Your task to perform on an android device: Show the shopping cart on amazon. Search for "apple airpods" on amazon, select the first entry, add it to the cart, then select checkout. Image 0: 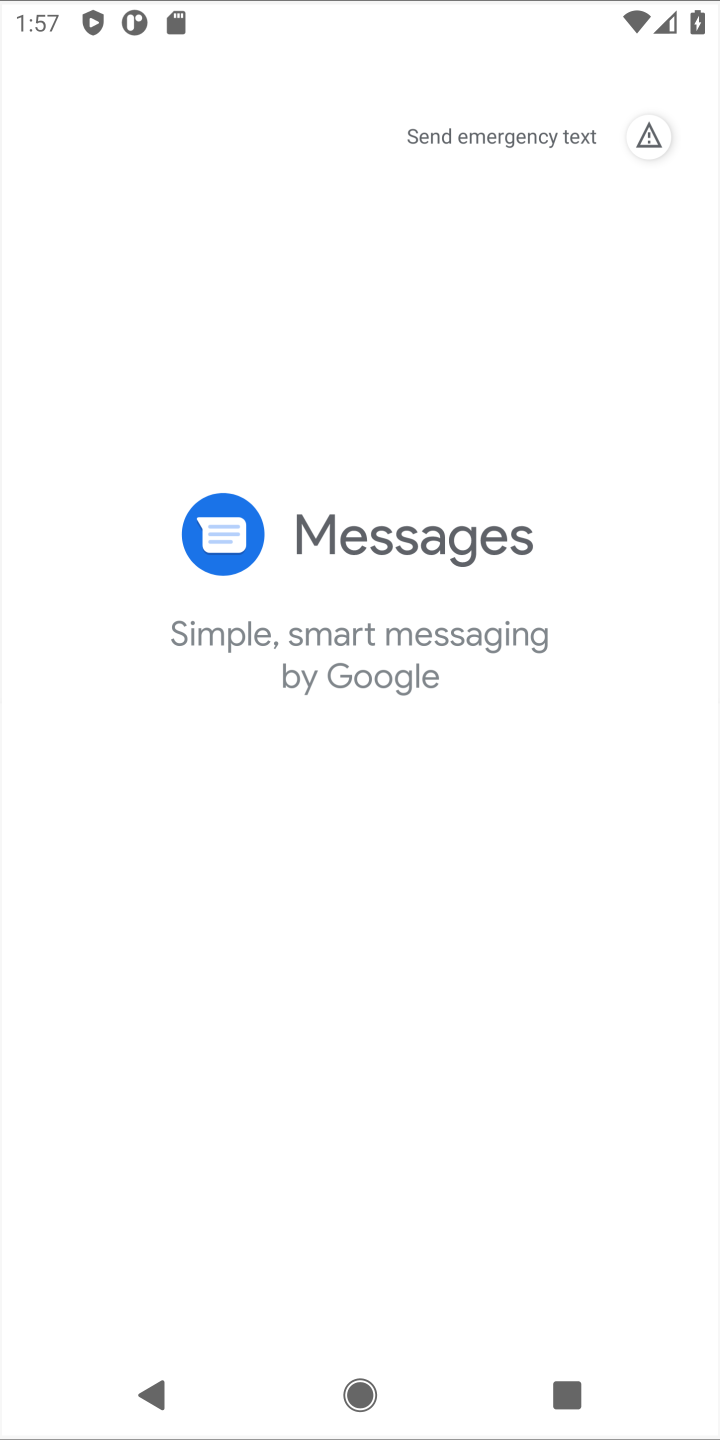
Step 0: press home button
Your task to perform on an android device: Show the shopping cart on amazon. Search for "apple airpods" on amazon, select the first entry, add it to the cart, then select checkout. Image 1: 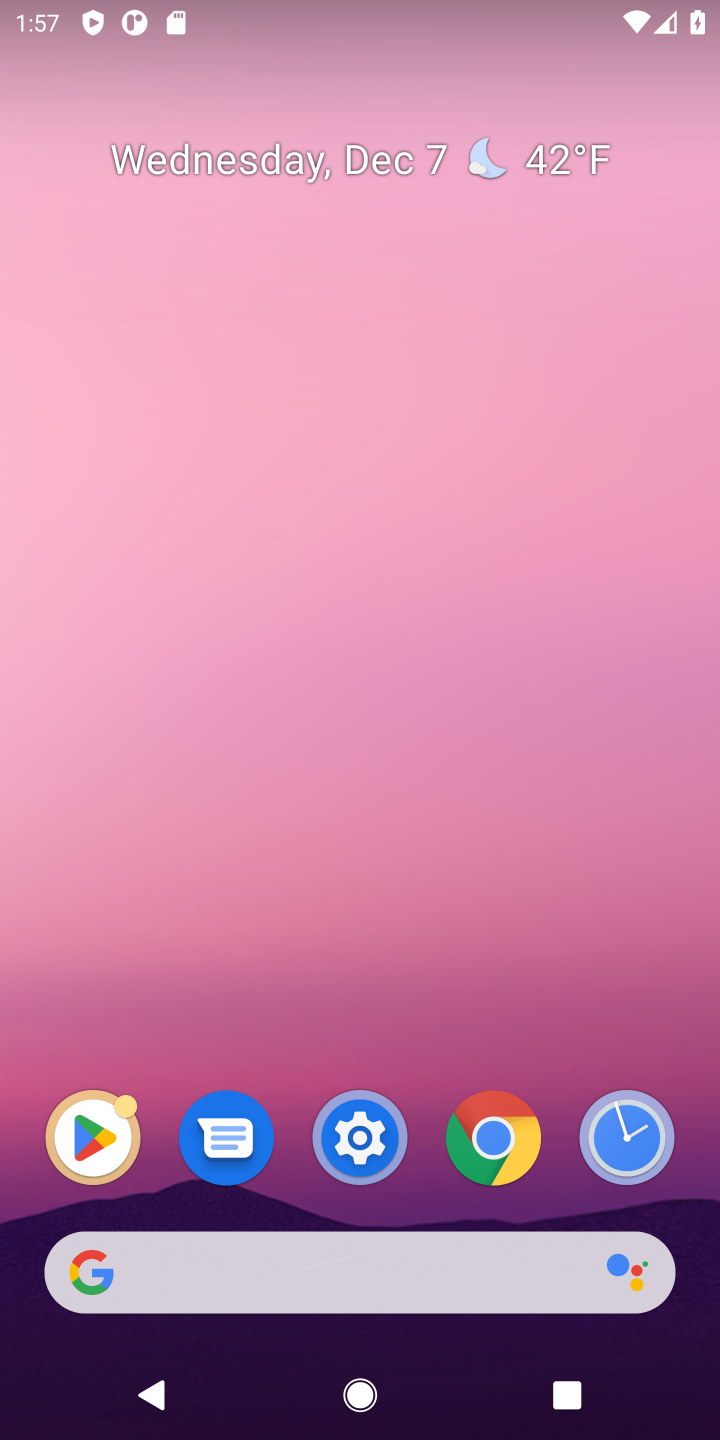
Step 1: click (511, 1248)
Your task to perform on an android device: Show the shopping cart on amazon. Search for "apple airpods" on amazon, select the first entry, add it to the cart, then select checkout. Image 2: 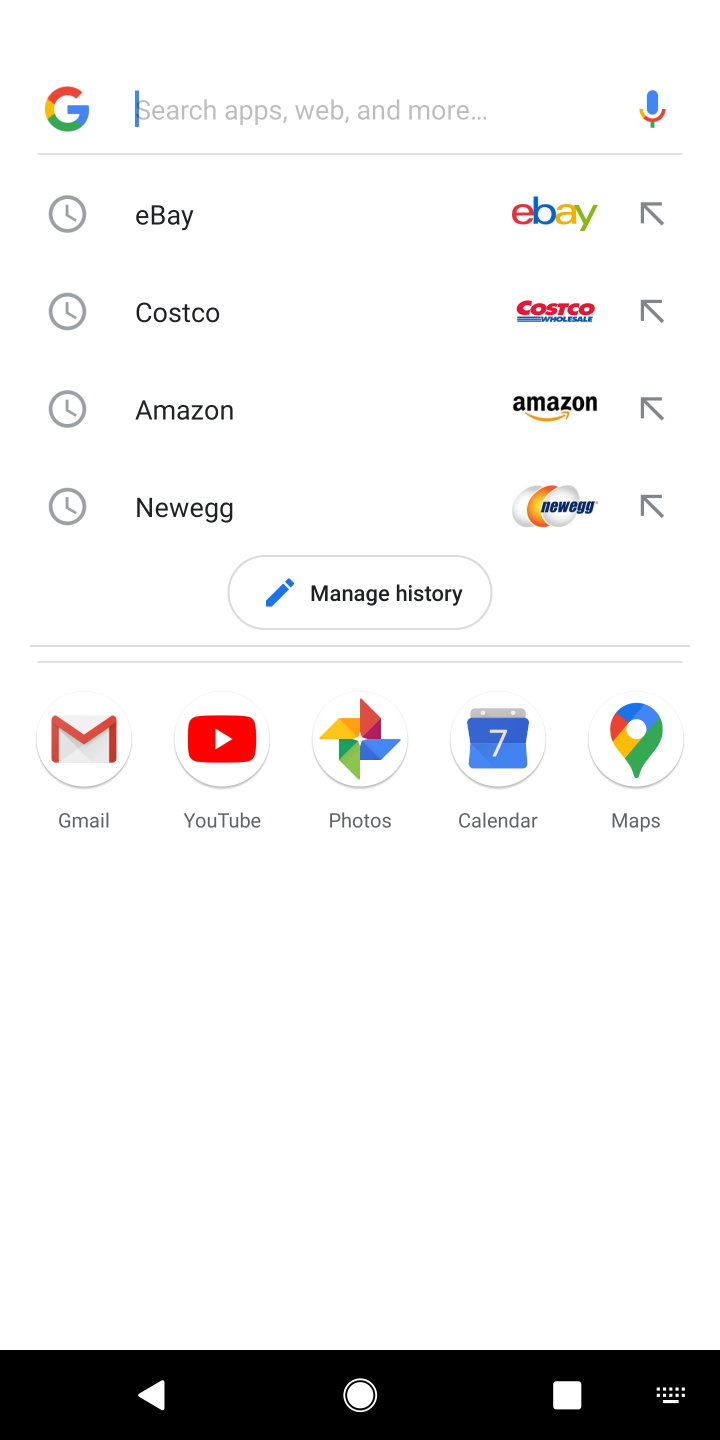
Step 2: click (215, 423)
Your task to perform on an android device: Show the shopping cart on amazon. Search for "apple airpods" on amazon, select the first entry, add it to the cart, then select checkout. Image 3: 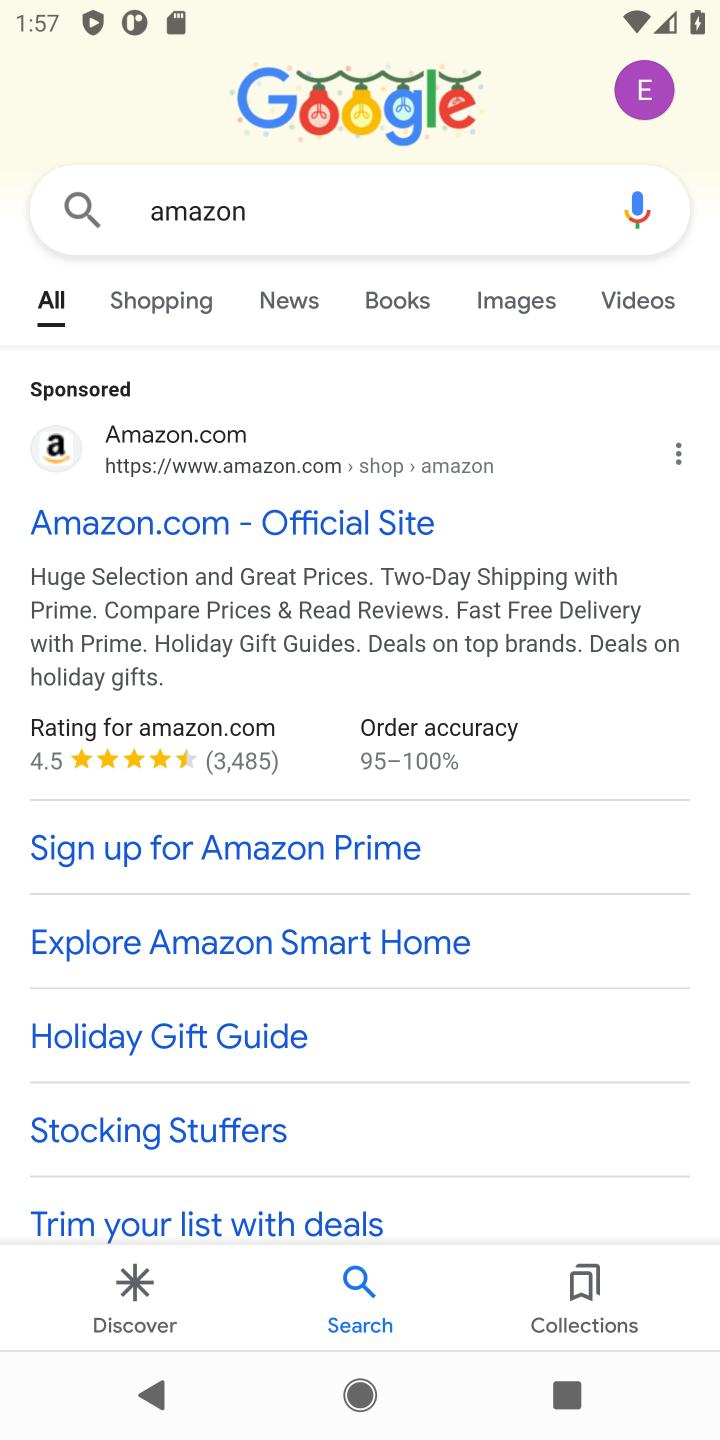
Step 3: click (256, 509)
Your task to perform on an android device: Show the shopping cart on amazon. Search for "apple airpods" on amazon, select the first entry, add it to the cart, then select checkout. Image 4: 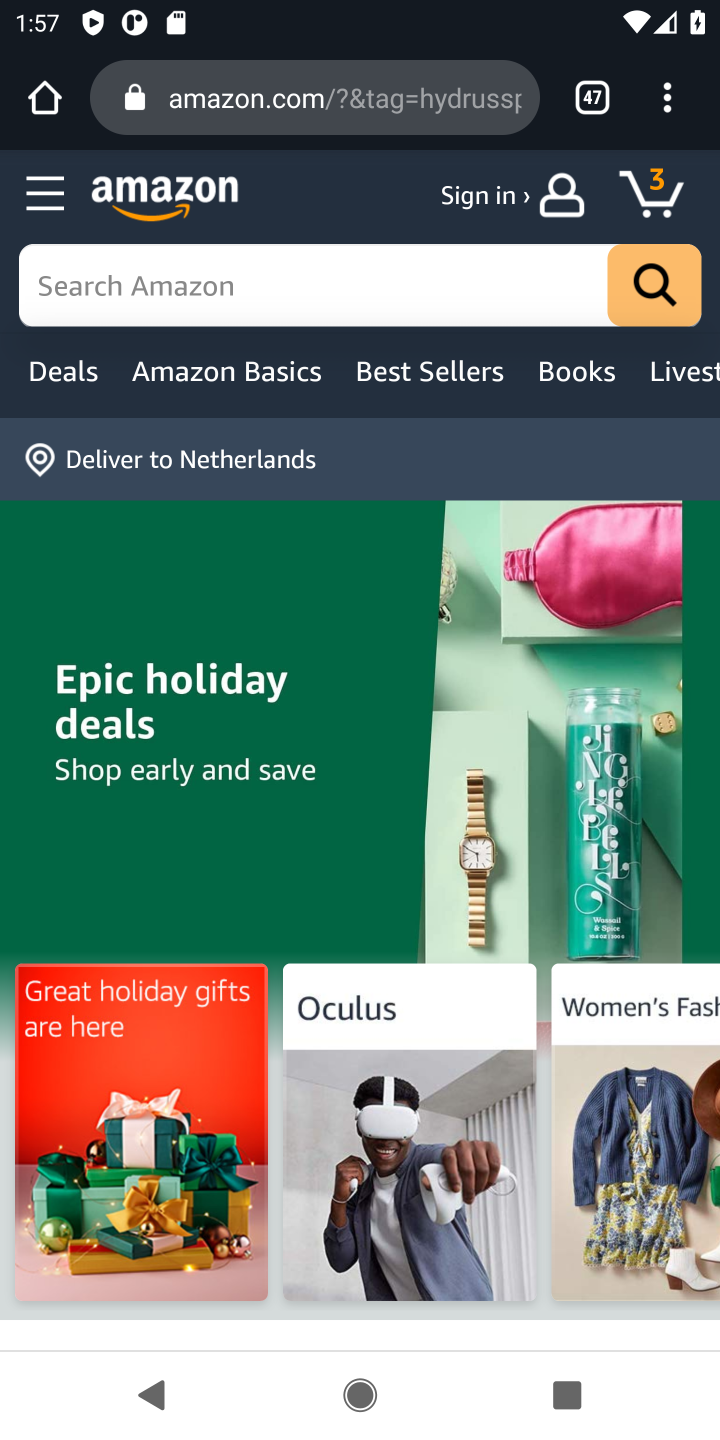
Step 4: click (256, 299)
Your task to perform on an android device: Show the shopping cart on amazon. Search for "apple airpods" on amazon, select the first entry, add it to the cart, then select checkout. Image 5: 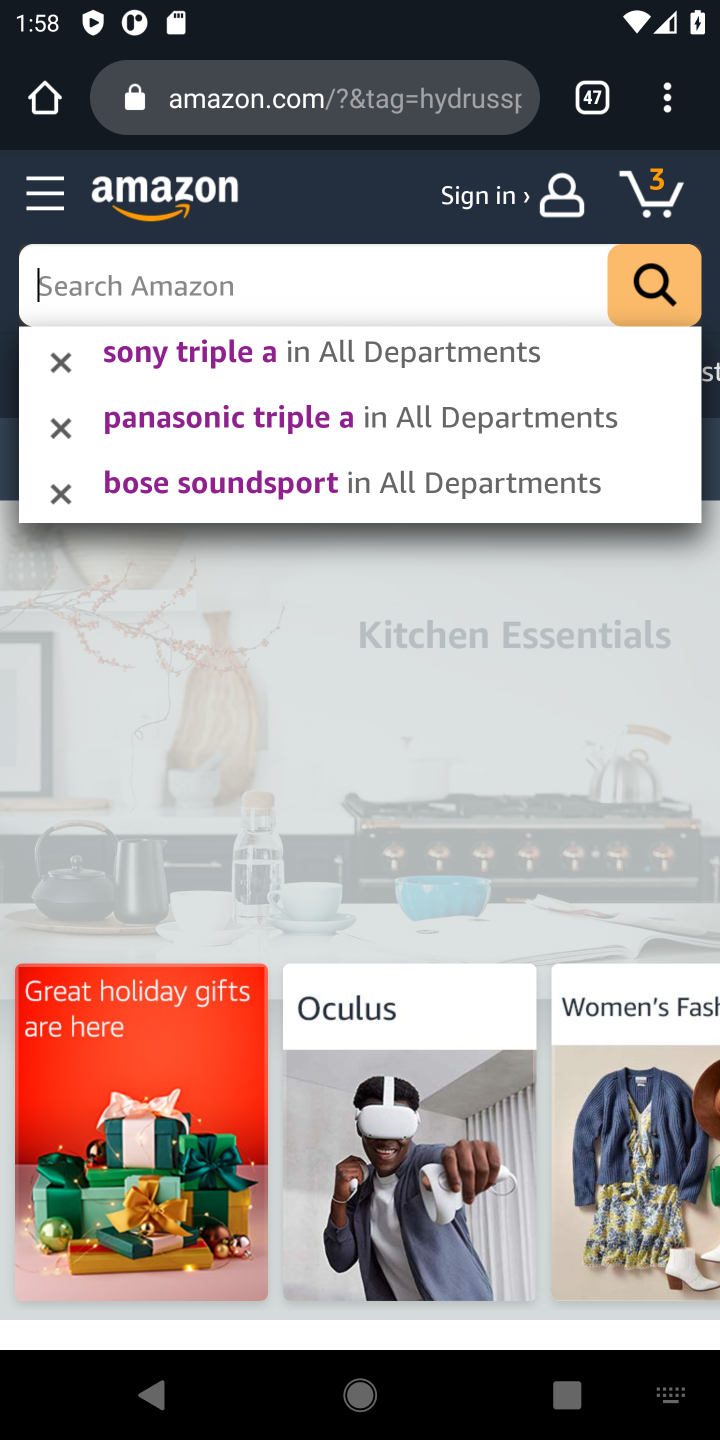
Step 5: type "apple airpod"
Your task to perform on an android device: Show the shopping cart on amazon. Search for "apple airpods" on amazon, select the first entry, add it to the cart, then select checkout. Image 6: 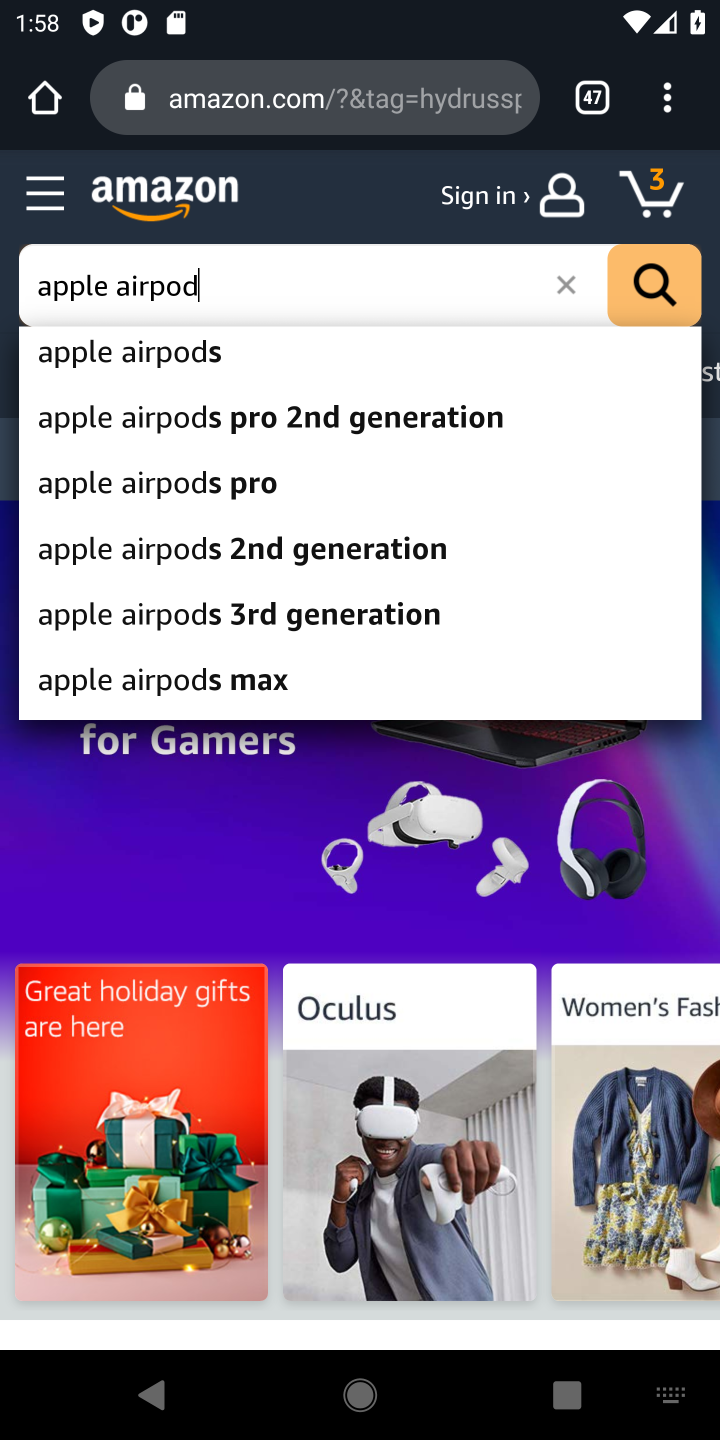
Step 6: click (649, 274)
Your task to perform on an android device: Show the shopping cart on amazon. Search for "apple airpods" on amazon, select the first entry, add it to the cart, then select checkout. Image 7: 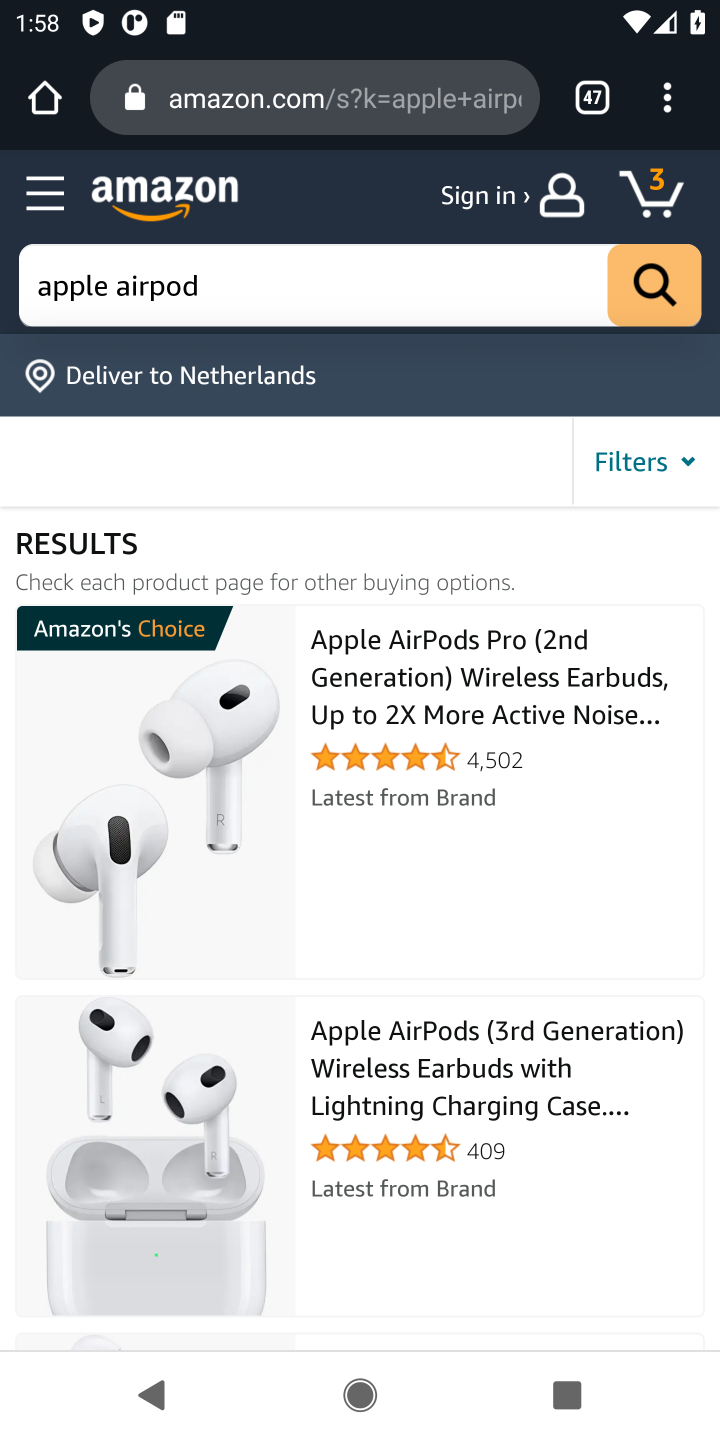
Step 7: click (536, 665)
Your task to perform on an android device: Show the shopping cart on amazon. Search for "apple airpods" on amazon, select the first entry, add it to the cart, then select checkout. Image 8: 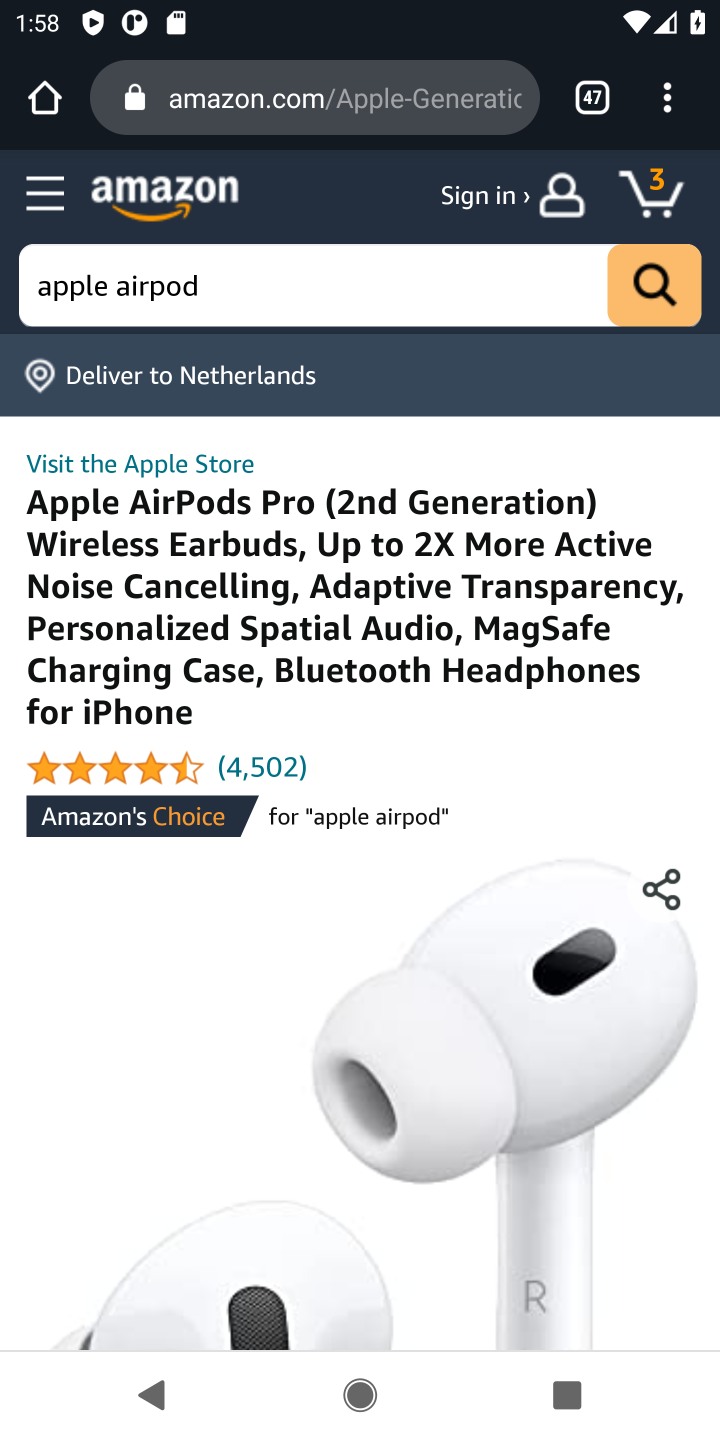
Step 8: drag from (399, 949) to (388, 319)
Your task to perform on an android device: Show the shopping cart on amazon. Search for "apple airpods" on amazon, select the first entry, add it to the cart, then select checkout. Image 9: 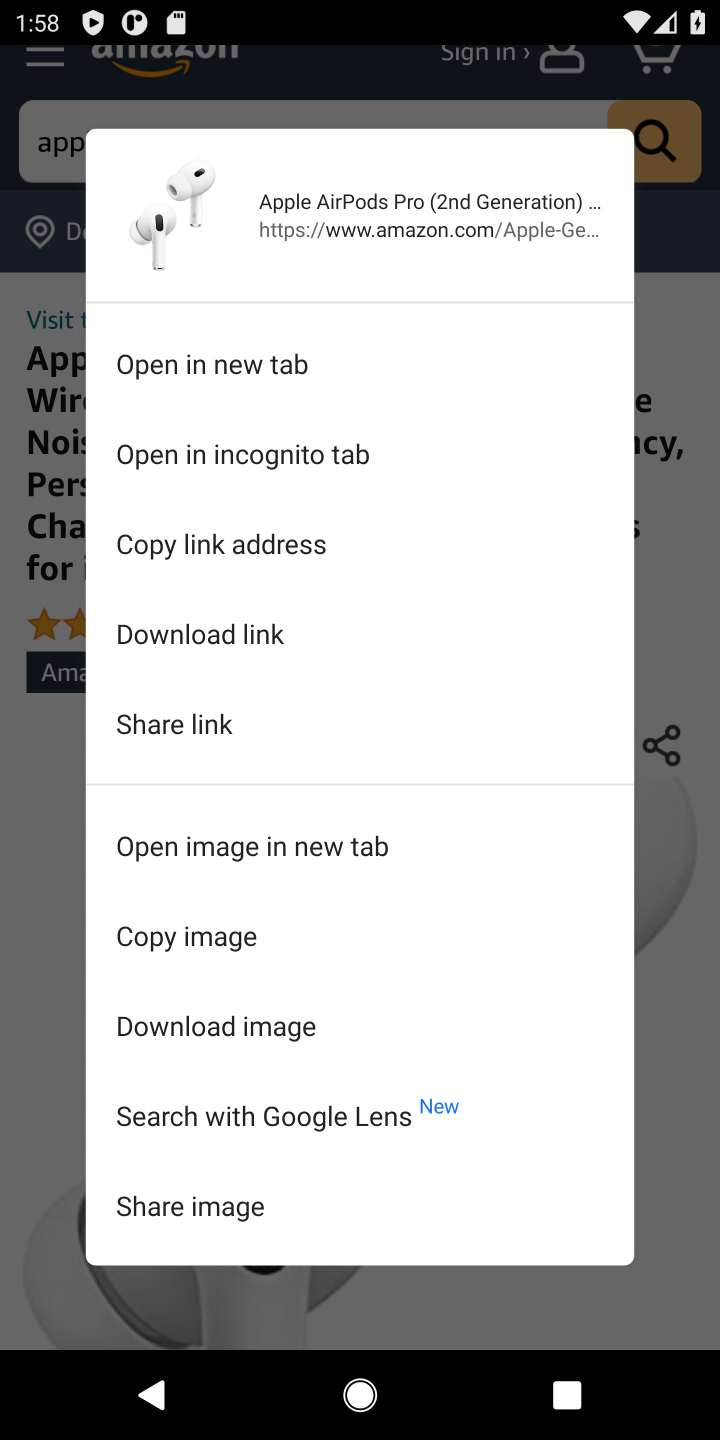
Step 9: click (687, 621)
Your task to perform on an android device: Show the shopping cart on amazon. Search for "apple airpods" on amazon, select the first entry, add it to the cart, then select checkout. Image 10: 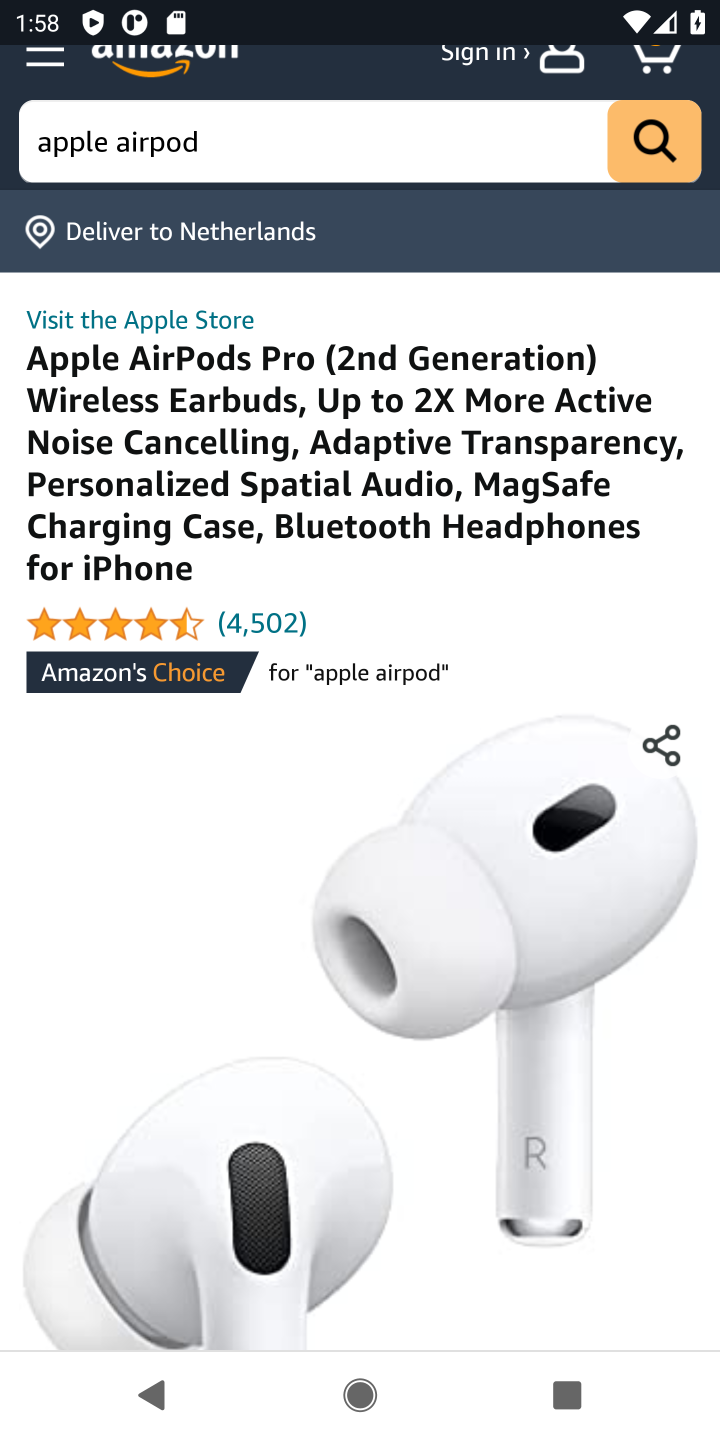
Step 10: drag from (463, 1221) to (476, 465)
Your task to perform on an android device: Show the shopping cart on amazon. Search for "apple airpods" on amazon, select the first entry, add it to the cart, then select checkout. Image 11: 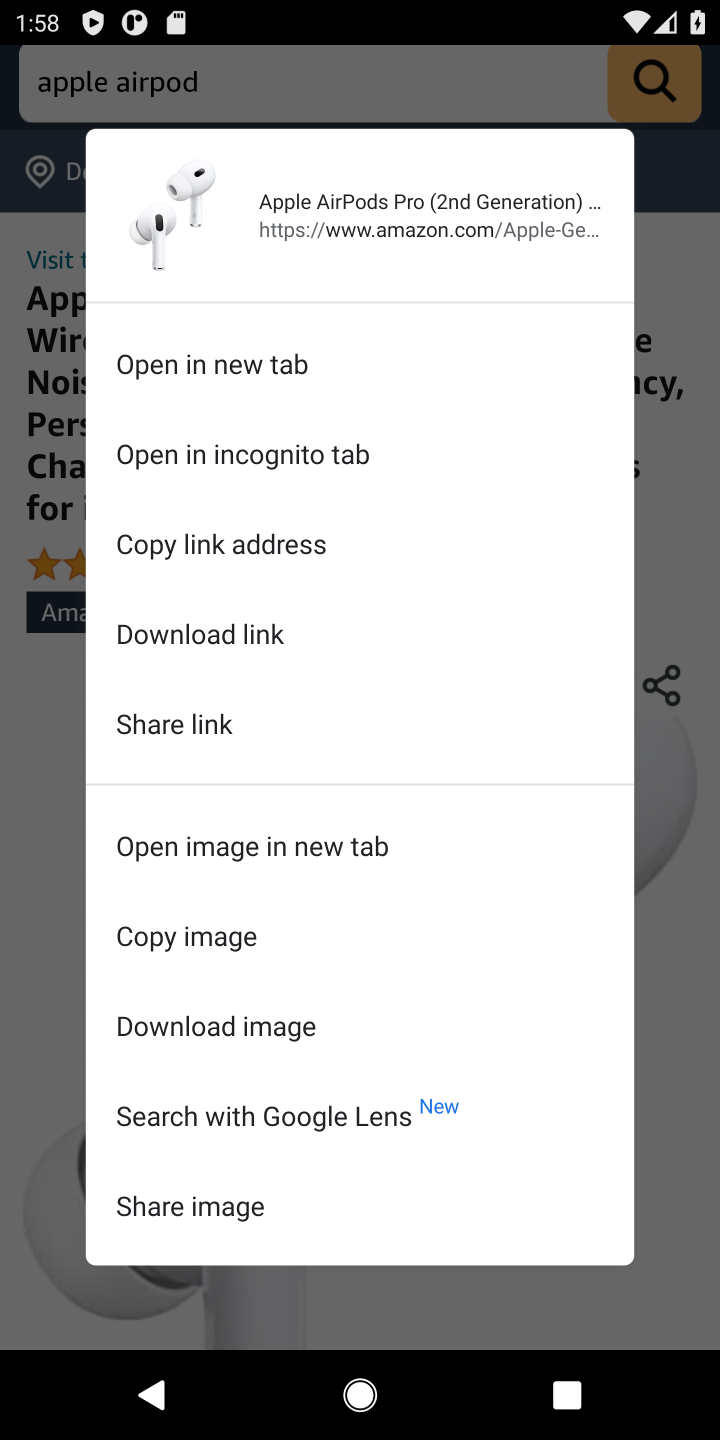
Step 11: click (682, 966)
Your task to perform on an android device: Show the shopping cart on amazon. Search for "apple airpods" on amazon, select the first entry, add it to the cart, then select checkout. Image 12: 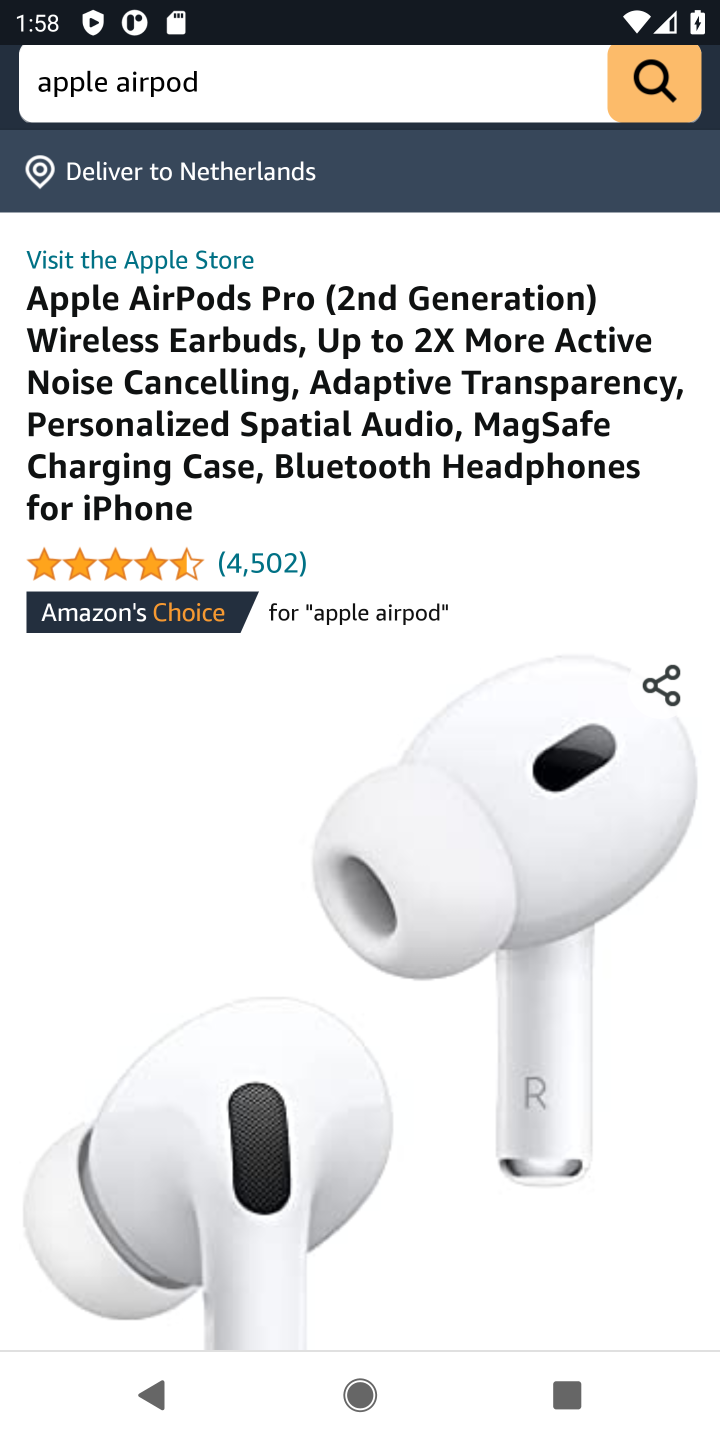
Step 12: drag from (478, 1245) to (532, 331)
Your task to perform on an android device: Show the shopping cart on amazon. Search for "apple airpods" on amazon, select the first entry, add it to the cart, then select checkout. Image 13: 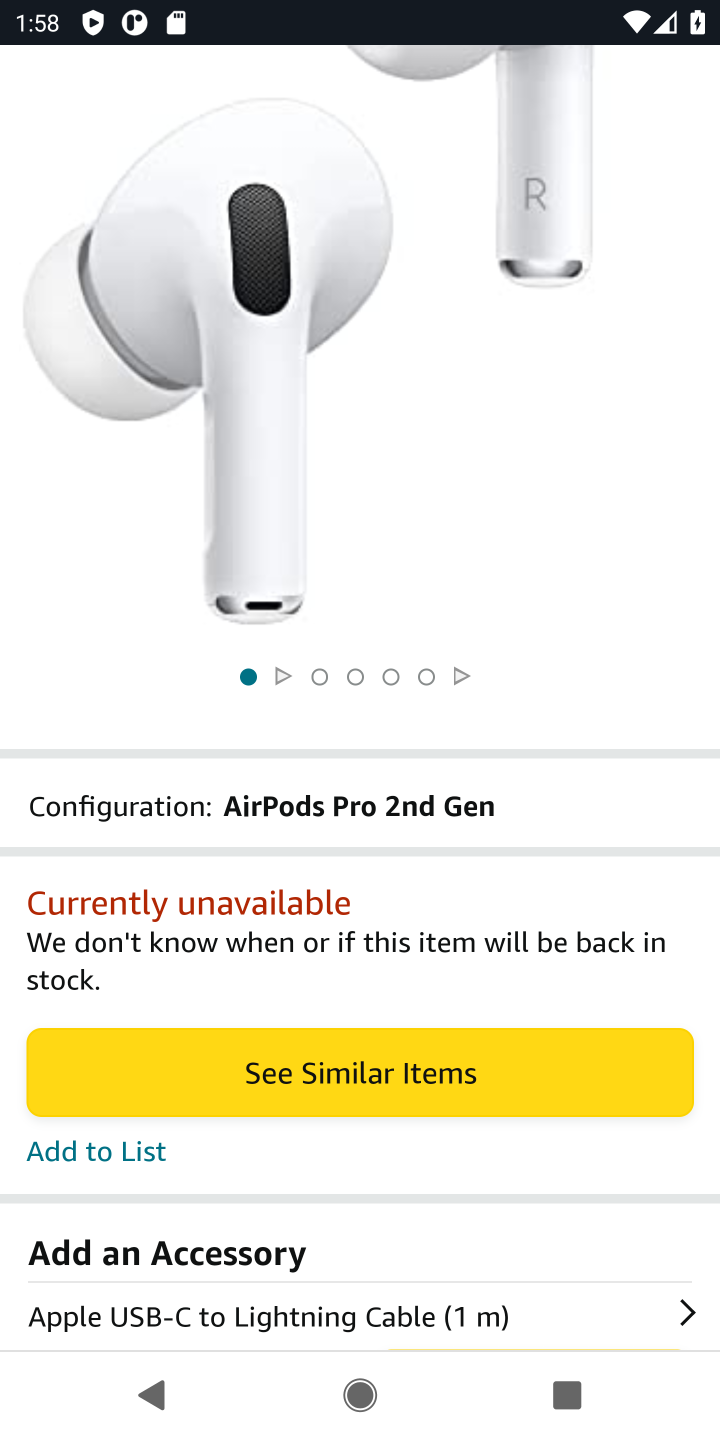
Step 13: drag from (593, 1158) to (524, 359)
Your task to perform on an android device: Show the shopping cart on amazon. Search for "apple airpods" on amazon, select the first entry, add it to the cart, then select checkout. Image 14: 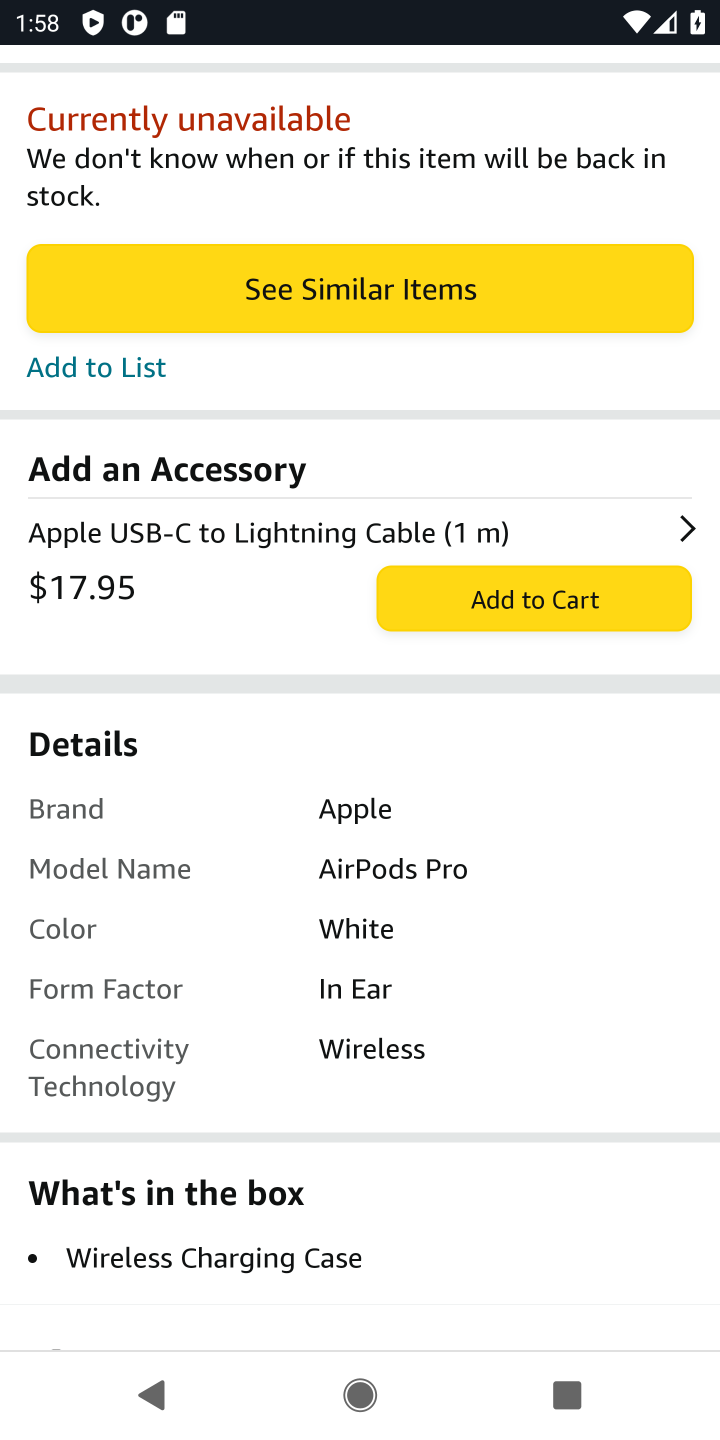
Step 14: click (547, 594)
Your task to perform on an android device: Show the shopping cart on amazon. Search for "apple airpods" on amazon, select the first entry, add it to the cart, then select checkout. Image 15: 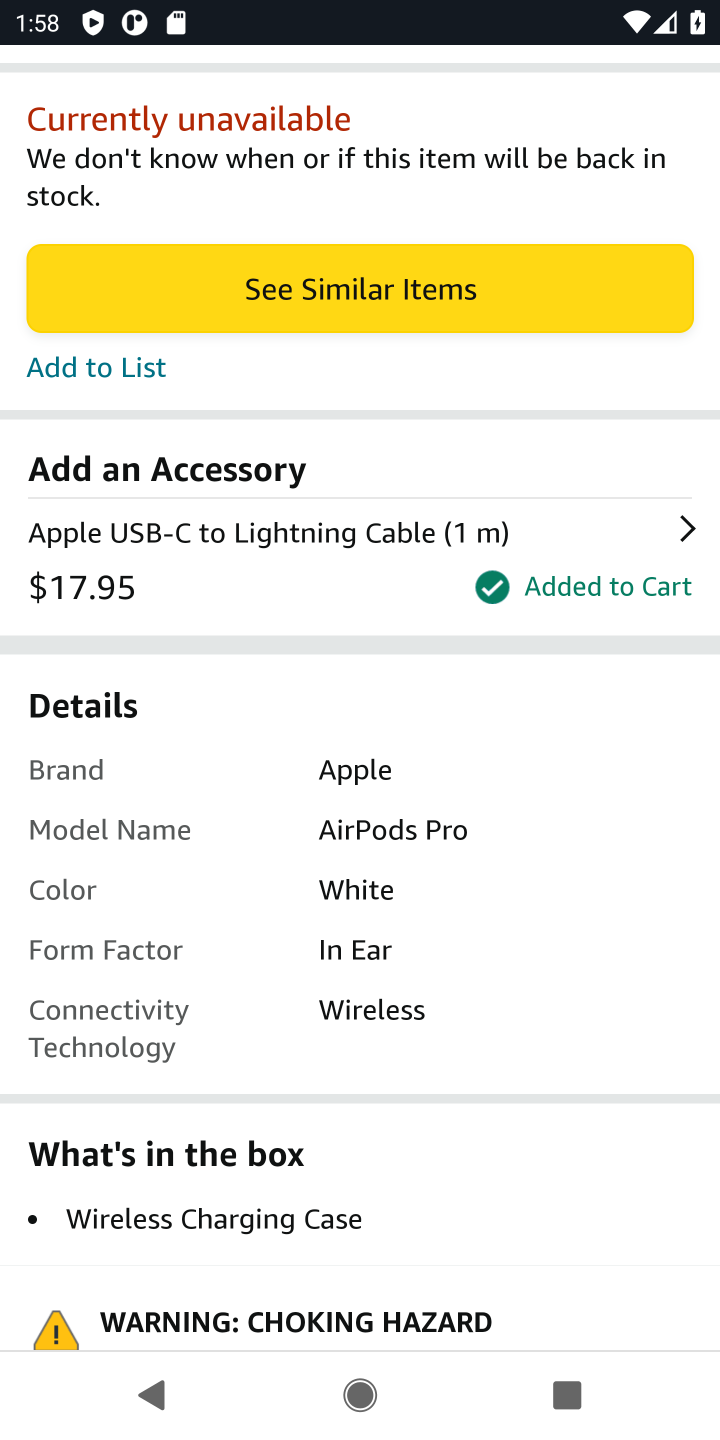
Step 15: task complete